Your task to perform on an android device: toggle show notifications on the lock screen Image 0: 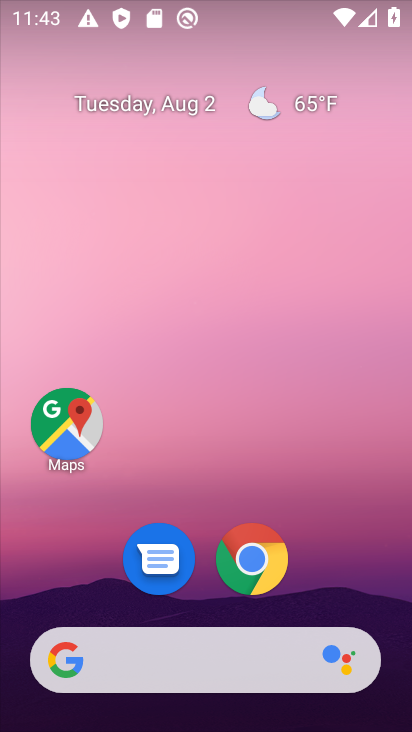
Step 0: drag from (217, 718) to (213, 266)
Your task to perform on an android device: toggle show notifications on the lock screen Image 1: 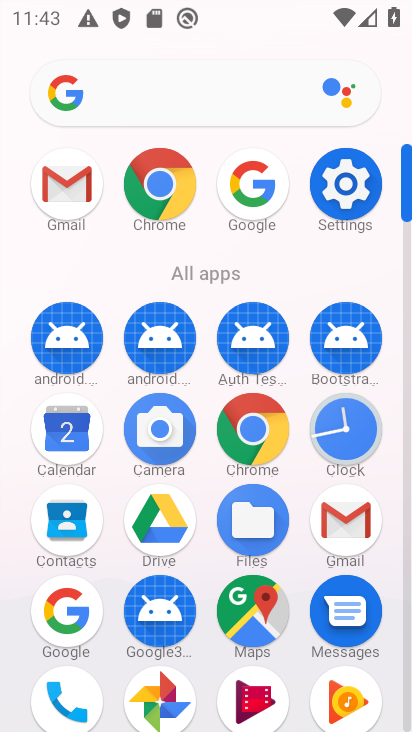
Step 1: click (349, 175)
Your task to perform on an android device: toggle show notifications on the lock screen Image 2: 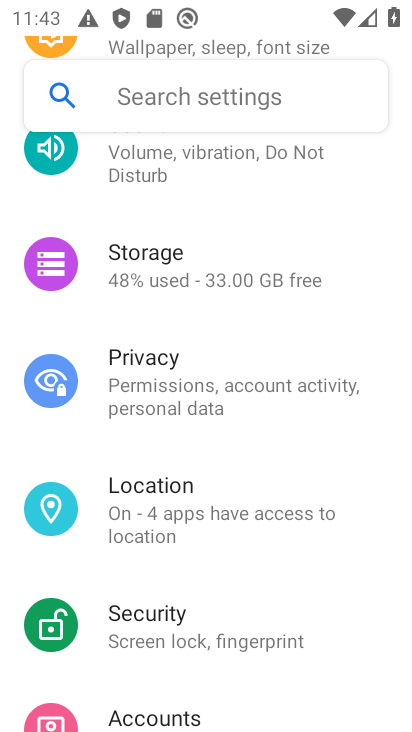
Step 2: drag from (220, 218) to (223, 693)
Your task to perform on an android device: toggle show notifications on the lock screen Image 3: 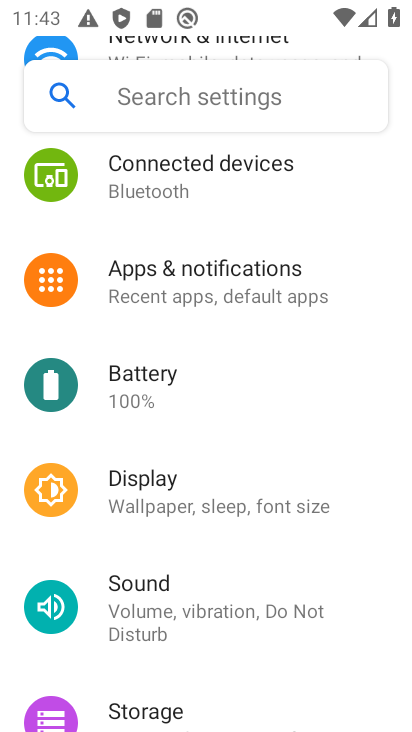
Step 3: click (200, 283)
Your task to perform on an android device: toggle show notifications on the lock screen Image 4: 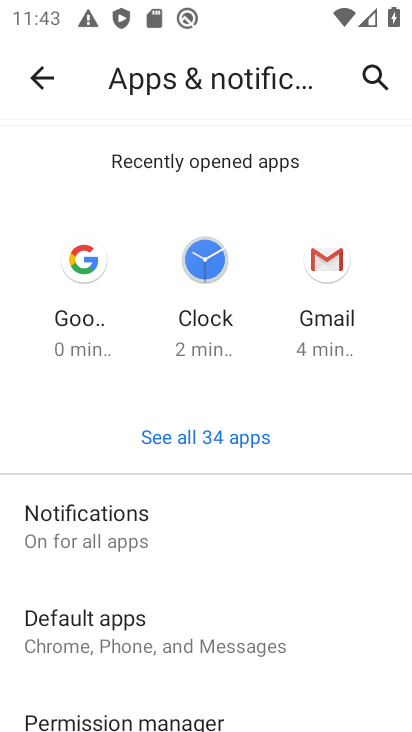
Step 4: click (71, 514)
Your task to perform on an android device: toggle show notifications on the lock screen Image 5: 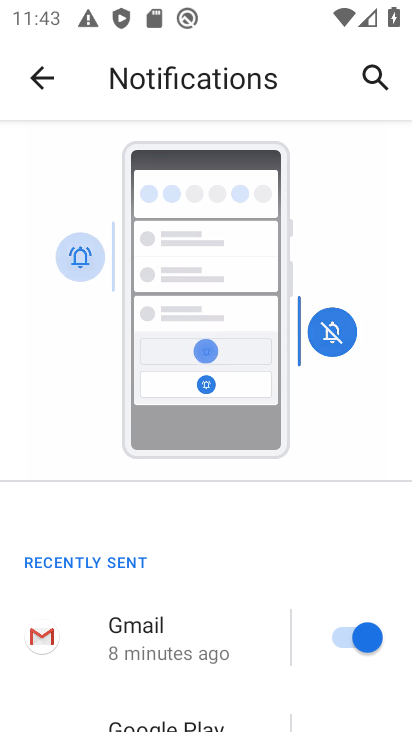
Step 5: drag from (172, 702) to (173, 355)
Your task to perform on an android device: toggle show notifications on the lock screen Image 6: 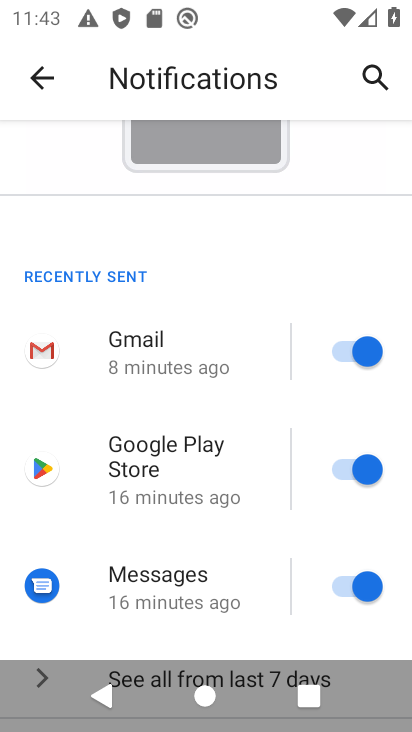
Step 6: drag from (253, 615) to (253, 294)
Your task to perform on an android device: toggle show notifications on the lock screen Image 7: 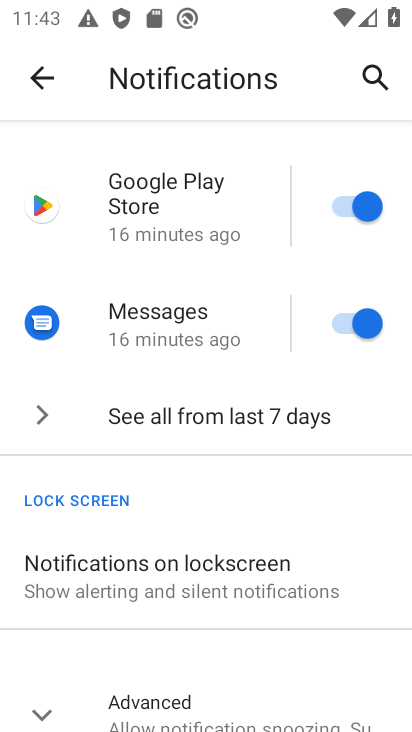
Step 7: click (186, 573)
Your task to perform on an android device: toggle show notifications on the lock screen Image 8: 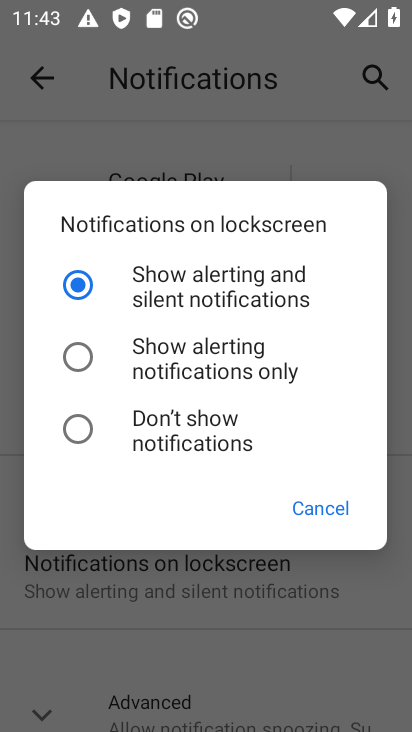
Step 8: click (78, 354)
Your task to perform on an android device: toggle show notifications on the lock screen Image 9: 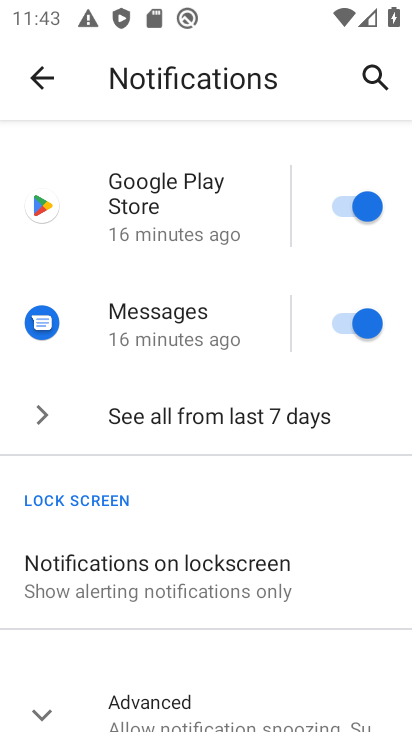
Step 9: task complete